Your task to perform on an android device: See recent photos Image 0: 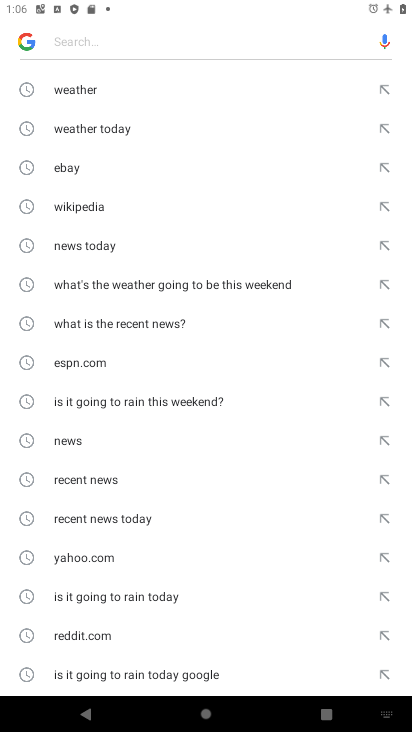
Step 0: press home button
Your task to perform on an android device: See recent photos Image 1: 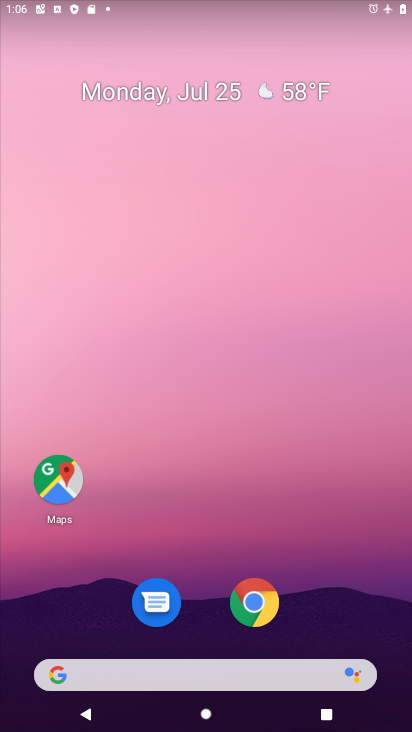
Step 1: drag from (210, 560) to (210, 53)
Your task to perform on an android device: See recent photos Image 2: 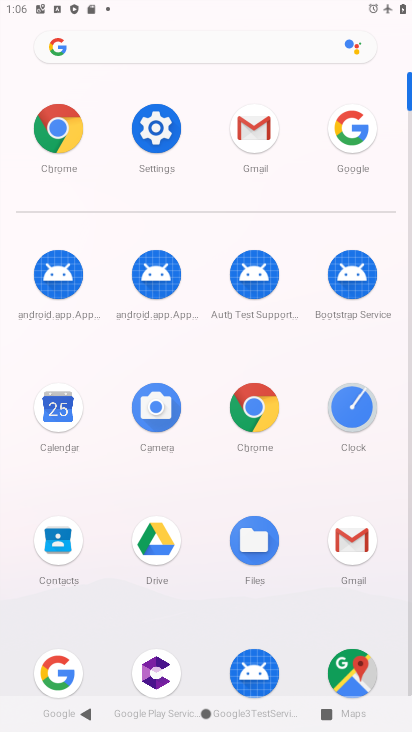
Step 2: drag from (211, 489) to (236, 211)
Your task to perform on an android device: See recent photos Image 3: 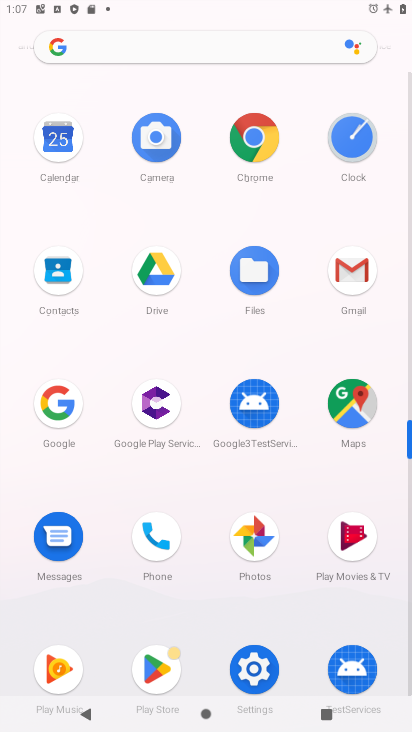
Step 3: click (263, 524)
Your task to perform on an android device: See recent photos Image 4: 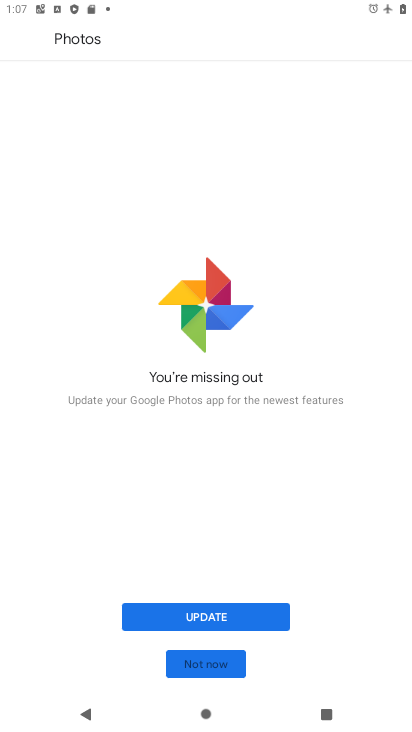
Step 4: click (218, 658)
Your task to perform on an android device: See recent photos Image 5: 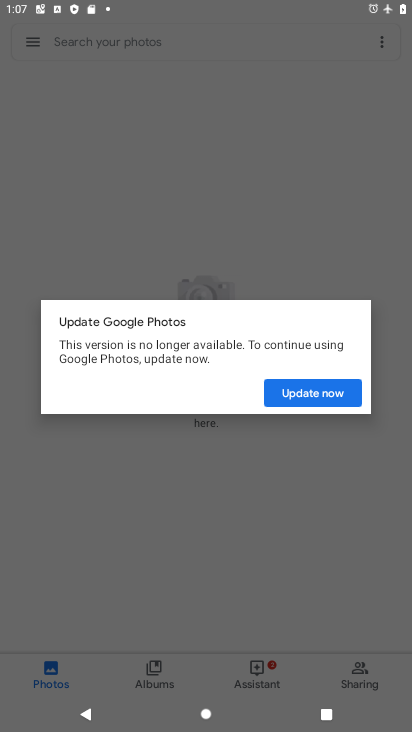
Step 5: click (290, 386)
Your task to perform on an android device: See recent photos Image 6: 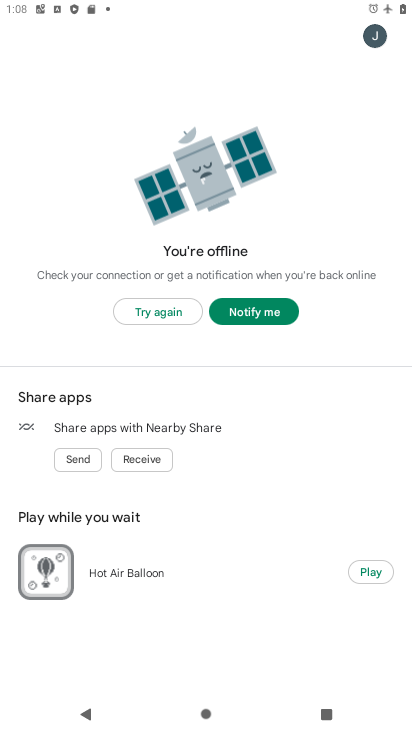
Step 6: task complete